Your task to perform on an android device: What's on my calendar tomorrow? Image 0: 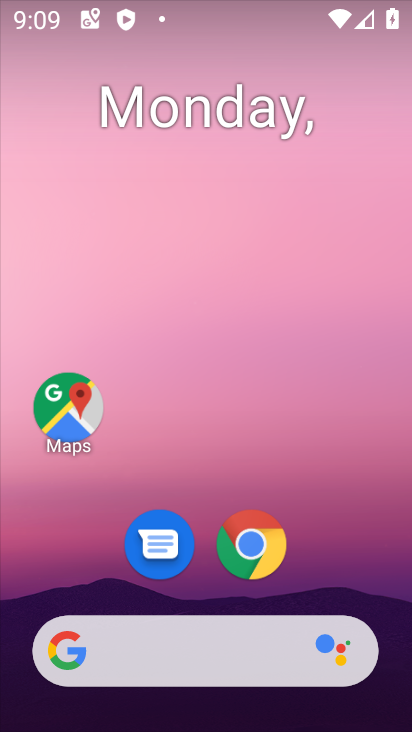
Step 0: drag from (310, 469) to (164, 0)
Your task to perform on an android device: What's on my calendar tomorrow? Image 1: 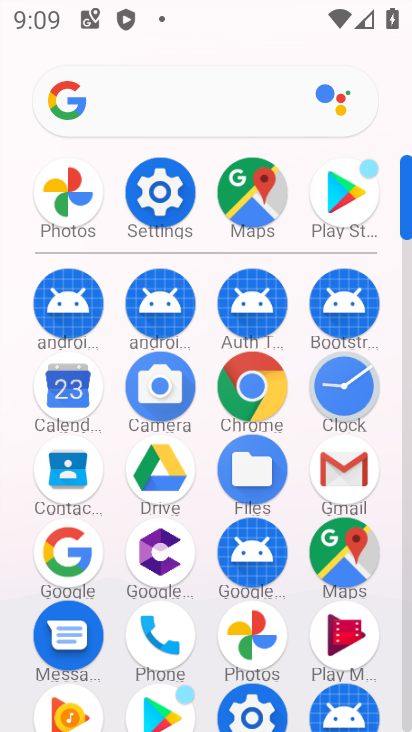
Step 1: click (68, 400)
Your task to perform on an android device: What's on my calendar tomorrow? Image 2: 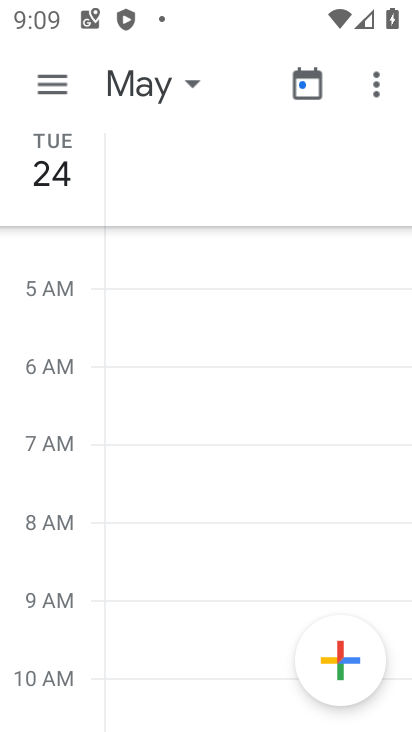
Step 2: task complete